Your task to perform on an android device: Go to battery settings Image 0: 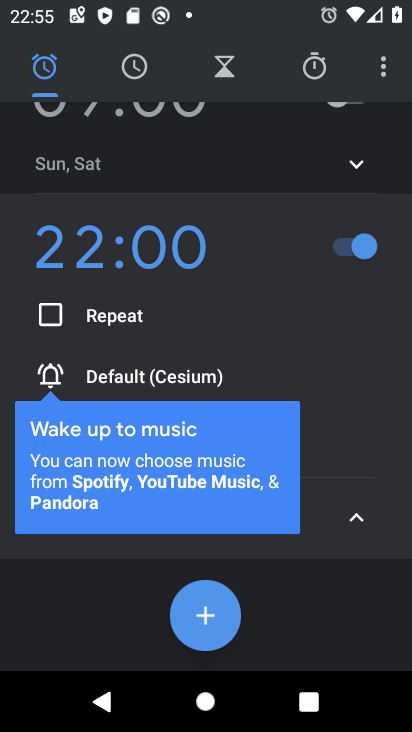
Step 0: press home button
Your task to perform on an android device: Go to battery settings Image 1: 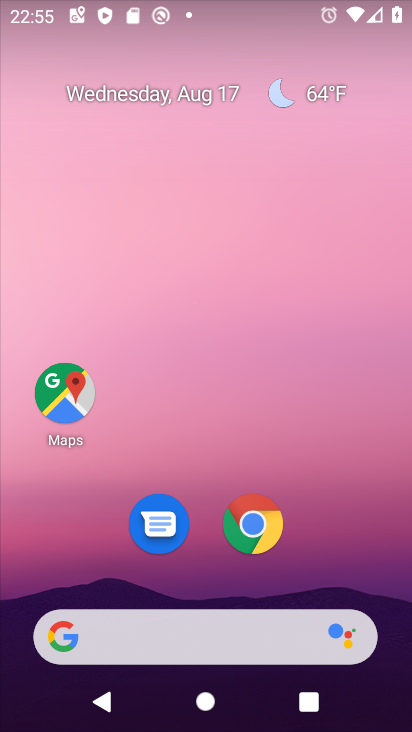
Step 1: drag from (313, 530) to (350, 31)
Your task to perform on an android device: Go to battery settings Image 2: 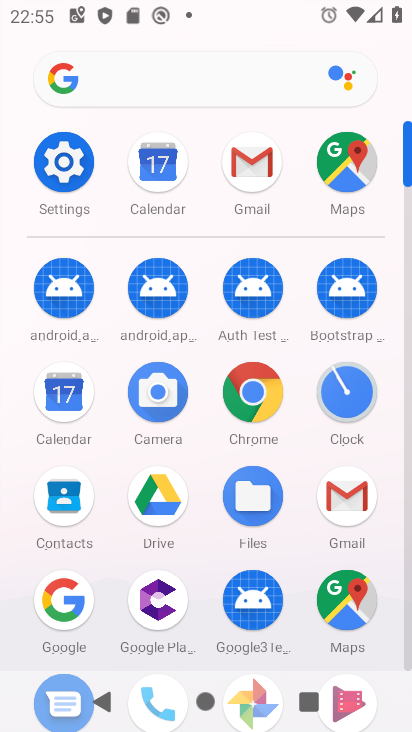
Step 2: click (71, 149)
Your task to perform on an android device: Go to battery settings Image 3: 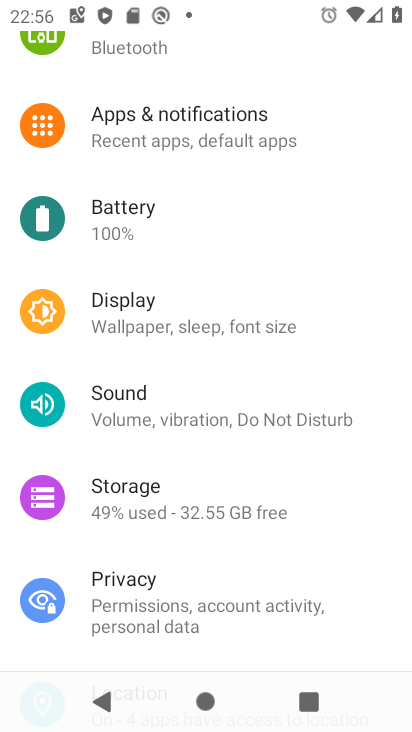
Step 3: click (196, 212)
Your task to perform on an android device: Go to battery settings Image 4: 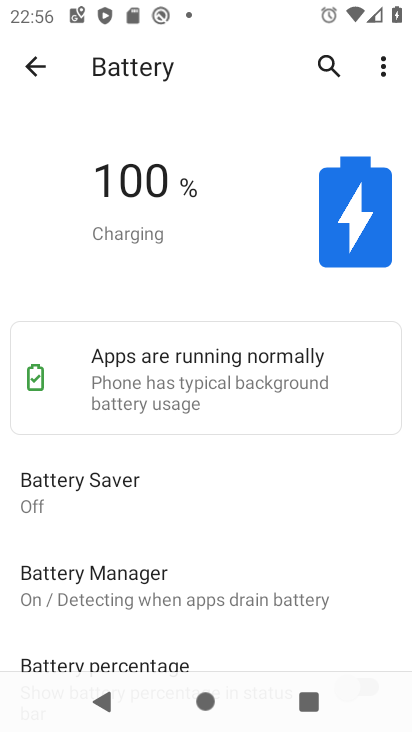
Step 4: task complete